Your task to perform on an android device: change the clock display to digital Image 0: 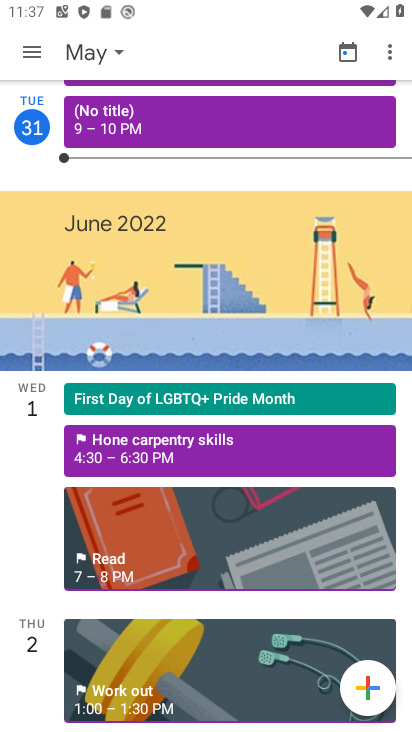
Step 0: task complete